Your task to perform on an android device: toggle data saver in the chrome app Image 0: 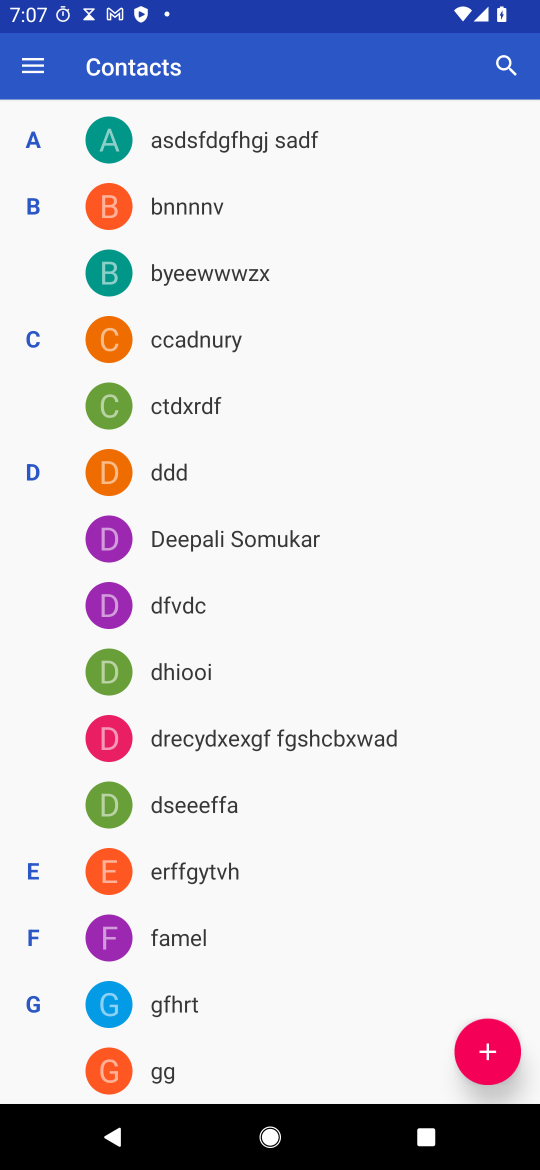
Step 0: press home button
Your task to perform on an android device: toggle data saver in the chrome app Image 1: 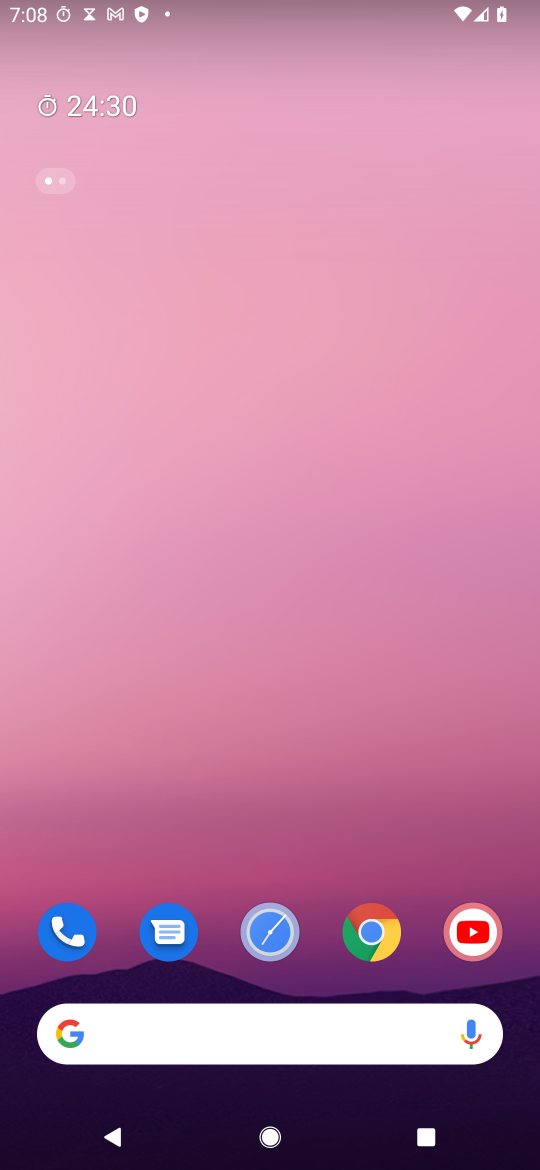
Step 1: drag from (362, 738) to (413, 47)
Your task to perform on an android device: toggle data saver in the chrome app Image 2: 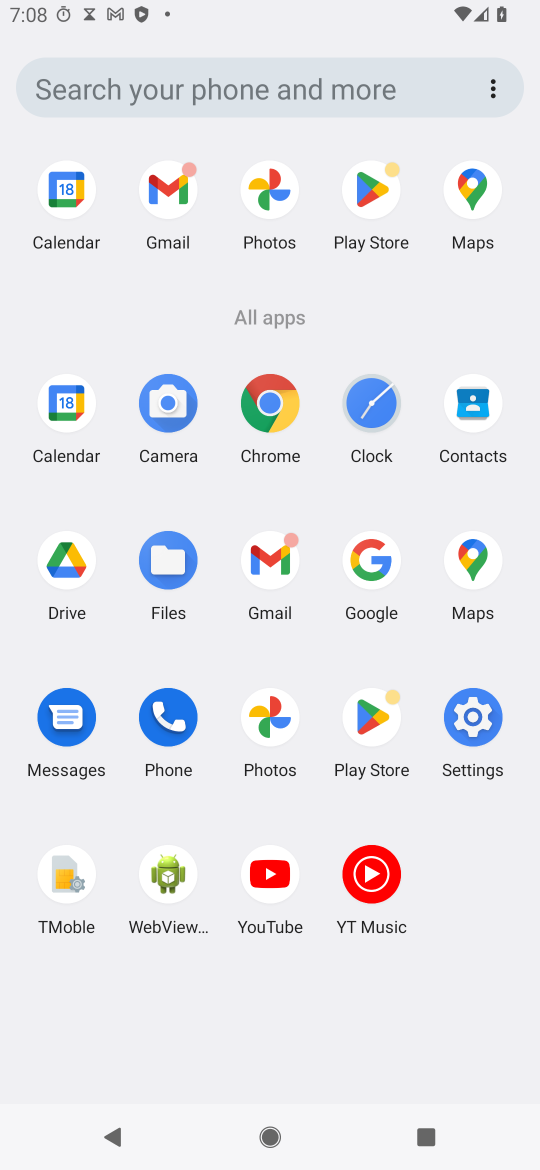
Step 2: click (268, 402)
Your task to perform on an android device: toggle data saver in the chrome app Image 3: 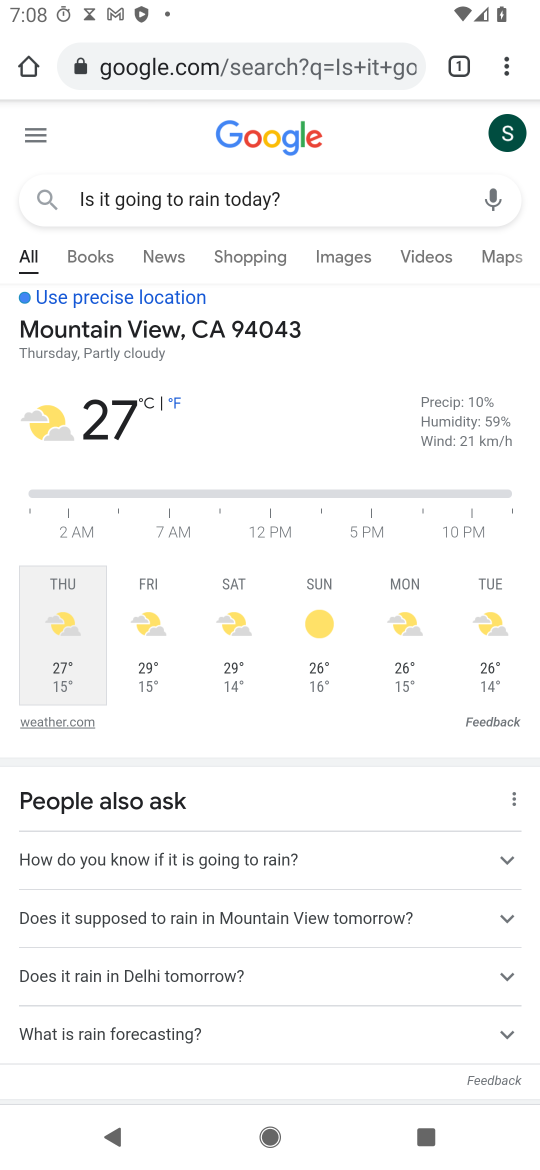
Step 3: drag from (501, 56) to (430, 857)
Your task to perform on an android device: toggle data saver in the chrome app Image 4: 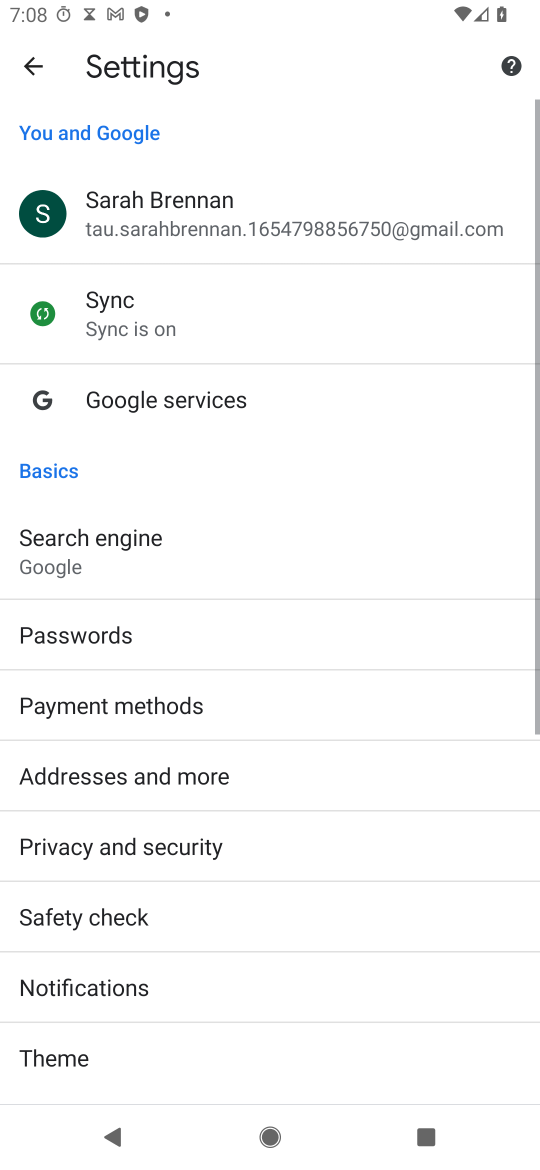
Step 4: drag from (458, 986) to (341, 115)
Your task to perform on an android device: toggle data saver in the chrome app Image 5: 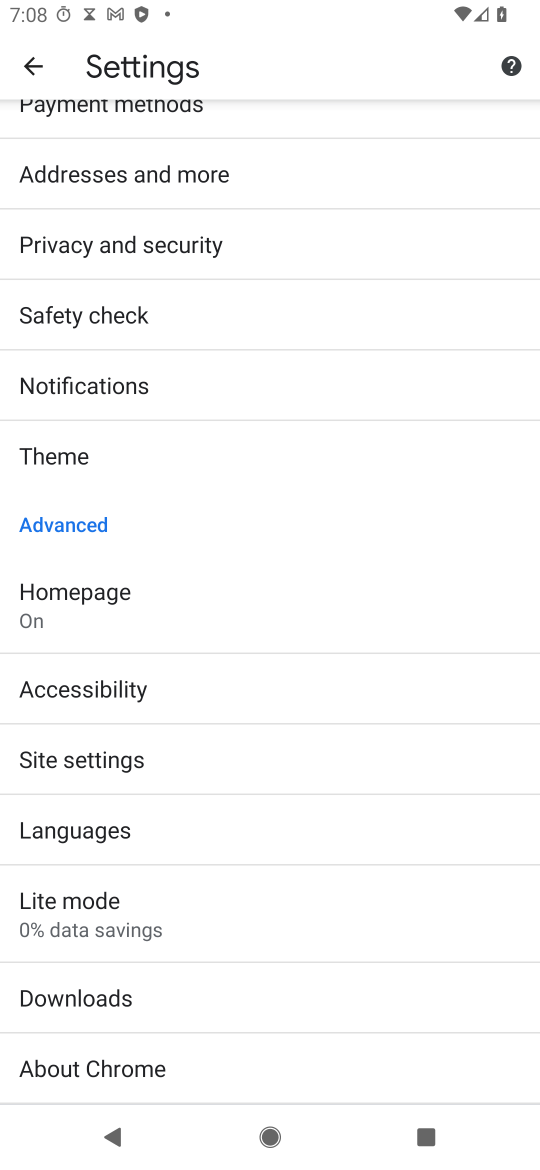
Step 5: click (98, 917)
Your task to perform on an android device: toggle data saver in the chrome app Image 6: 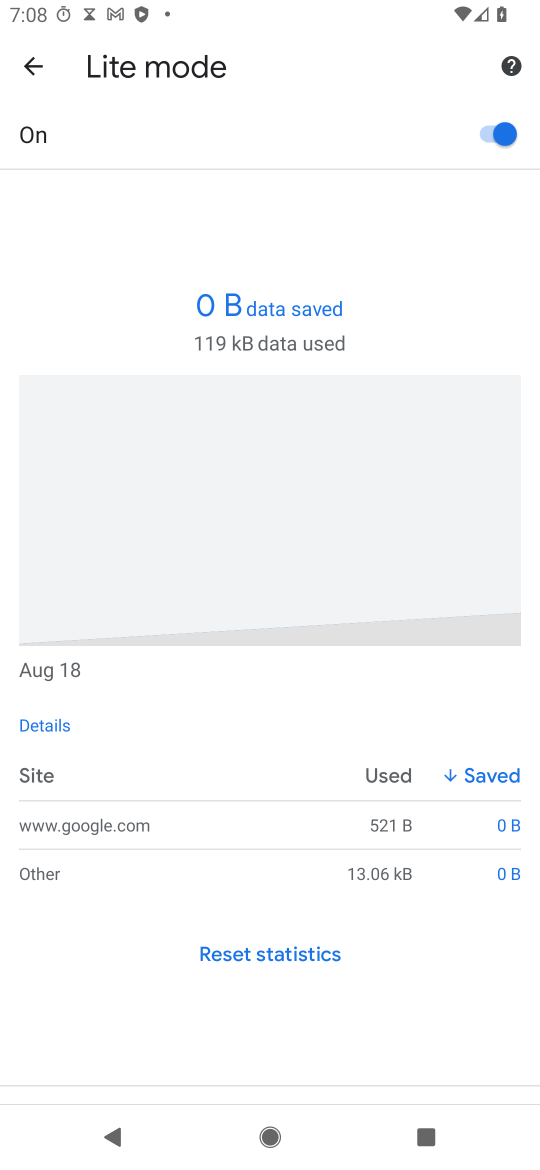
Step 6: click (432, 146)
Your task to perform on an android device: toggle data saver in the chrome app Image 7: 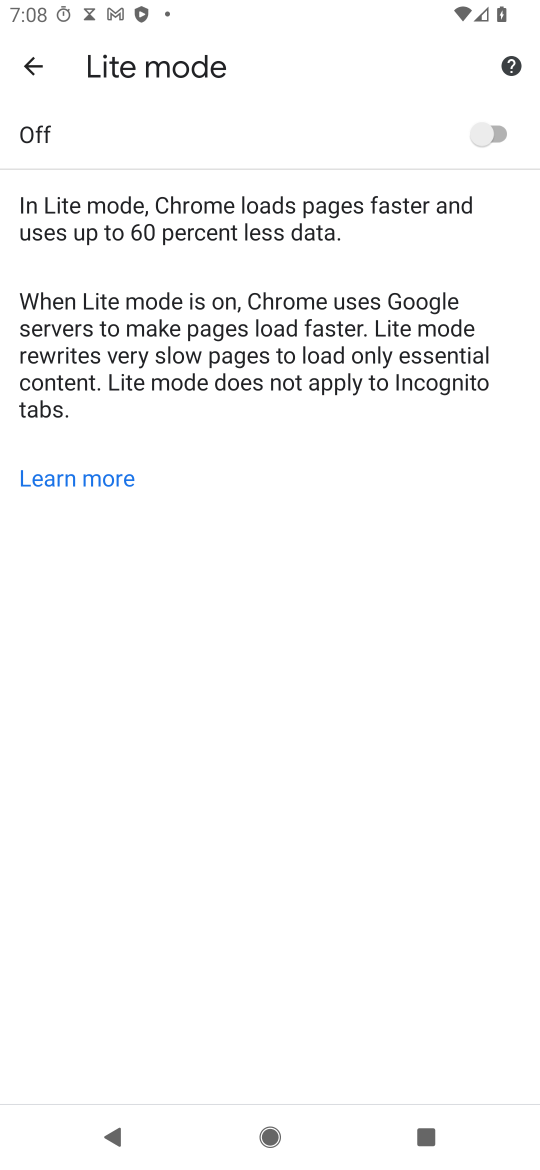
Step 7: task complete